Your task to perform on an android device: open a bookmark in the chrome app Image 0: 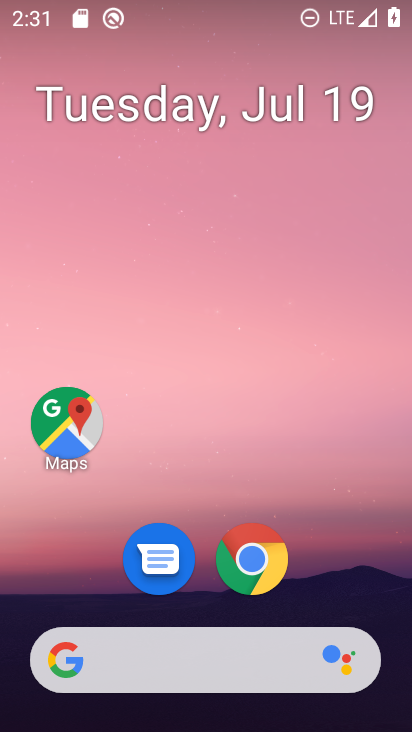
Step 0: drag from (201, 703) to (178, 165)
Your task to perform on an android device: open a bookmark in the chrome app Image 1: 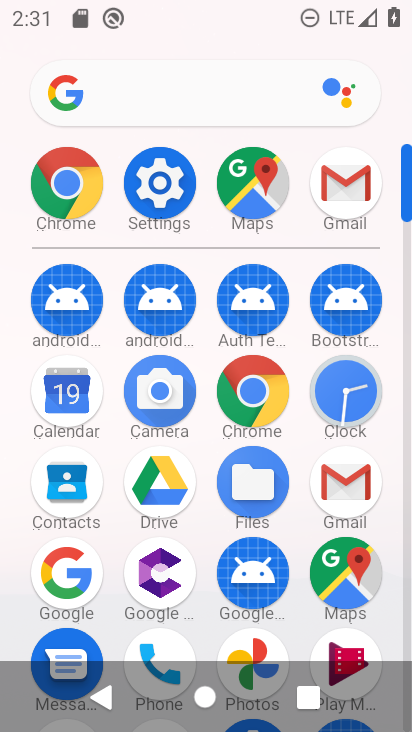
Step 1: click (260, 382)
Your task to perform on an android device: open a bookmark in the chrome app Image 2: 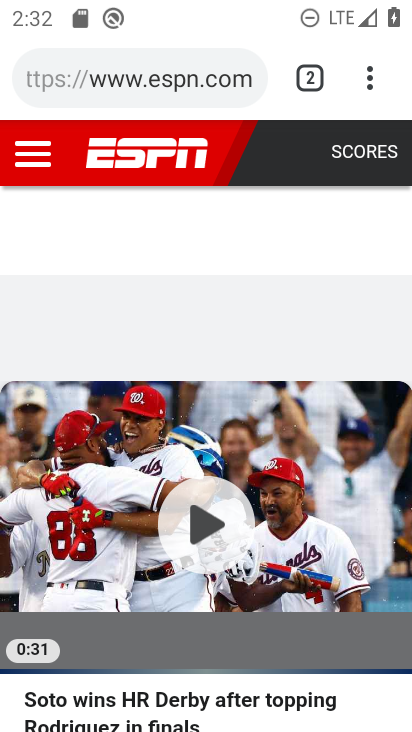
Step 2: click (367, 80)
Your task to perform on an android device: open a bookmark in the chrome app Image 3: 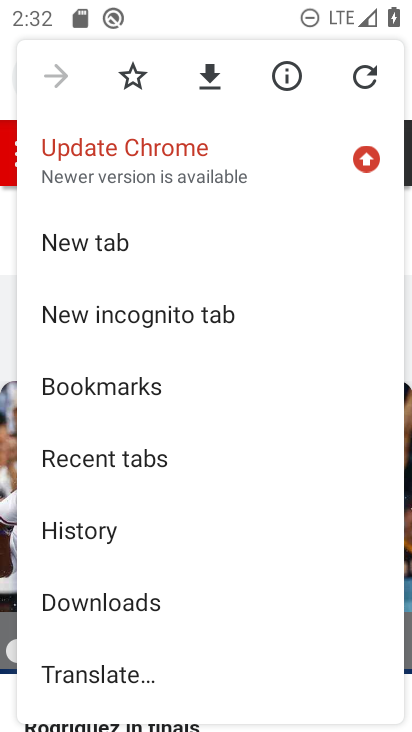
Step 3: click (143, 395)
Your task to perform on an android device: open a bookmark in the chrome app Image 4: 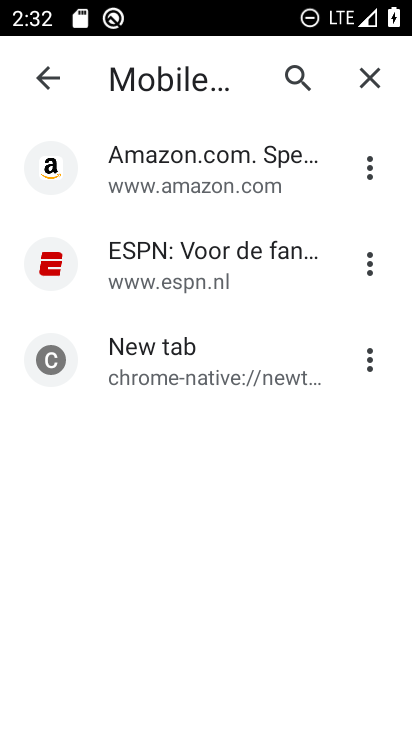
Step 4: click (197, 187)
Your task to perform on an android device: open a bookmark in the chrome app Image 5: 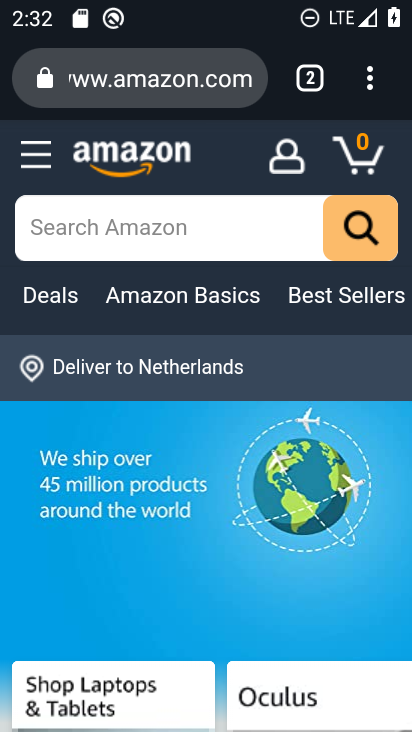
Step 5: task complete